Your task to perform on an android device: View the shopping cart on newegg. Image 0: 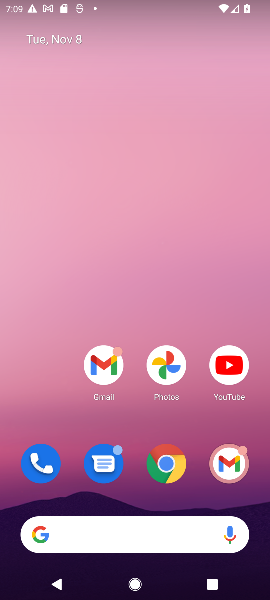
Step 0: click (167, 462)
Your task to perform on an android device: View the shopping cart on newegg. Image 1: 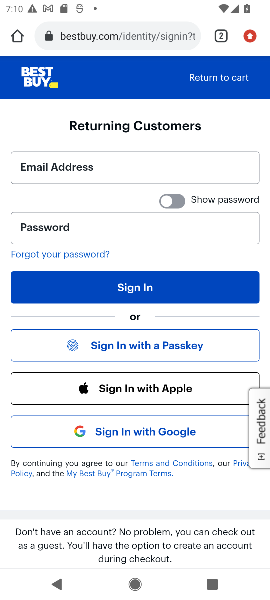
Step 1: click (66, 35)
Your task to perform on an android device: View the shopping cart on newegg. Image 2: 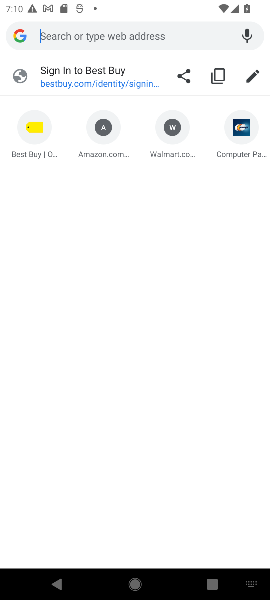
Step 2: type "newegg"
Your task to perform on an android device: View the shopping cart on newegg. Image 3: 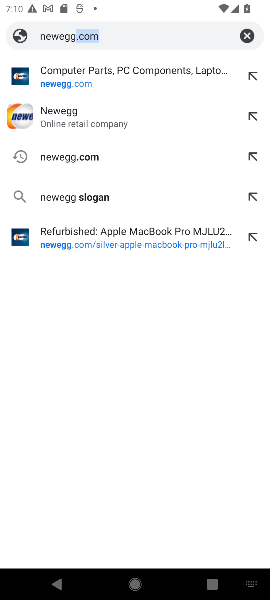
Step 3: click (18, 107)
Your task to perform on an android device: View the shopping cart on newegg. Image 4: 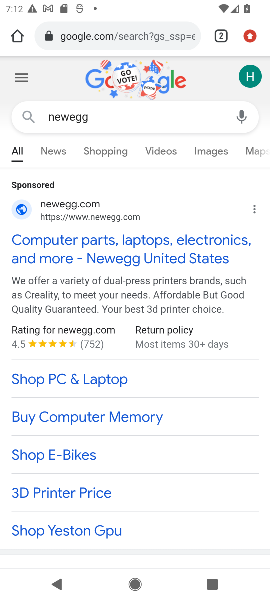
Step 4: click (127, 241)
Your task to perform on an android device: View the shopping cart on newegg. Image 5: 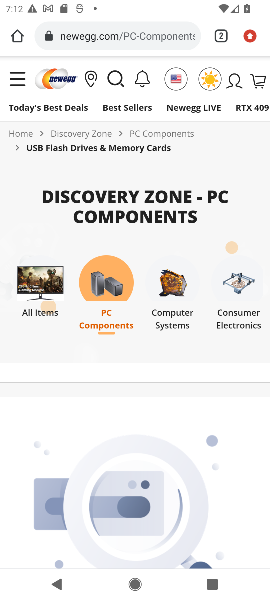
Step 5: click (252, 77)
Your task to perform on an android device: View the shopping cart on newegg. Image 6: 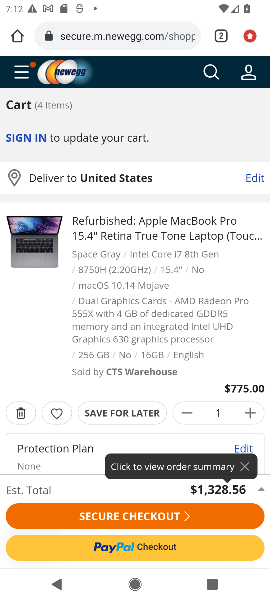
Step 6: task complete